Your task to perform on an android device: Turn off the flashlight Image 0: 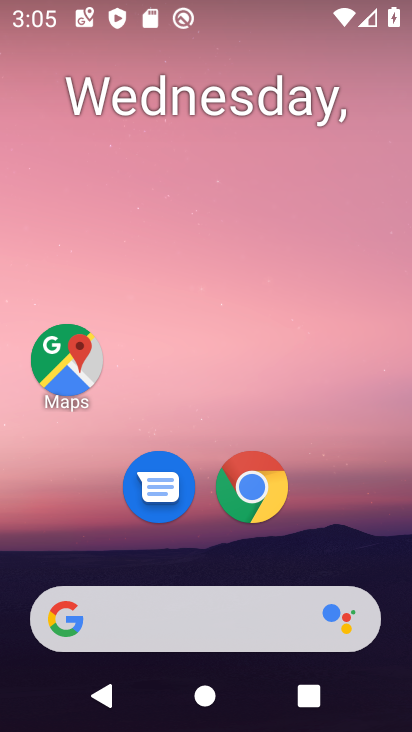
Step 0: press home button
Your task to perform on an android device: Turn off the flashlight Image 1: 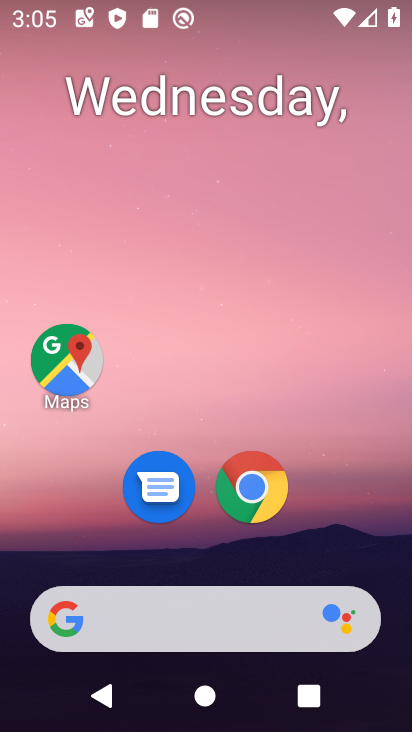
Step 1: task complete